Your task to perform on an android device: Open Android settings Image 0: 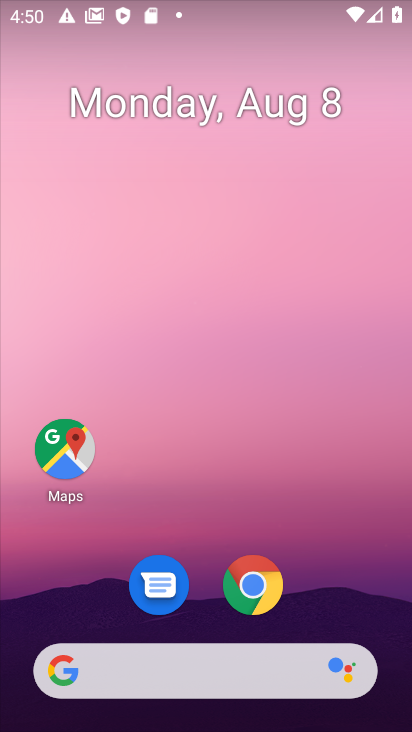
Step 0: drag from (314, 603) to (294, 13)
Your task to perform on an android device: Open Android settings Image 1: 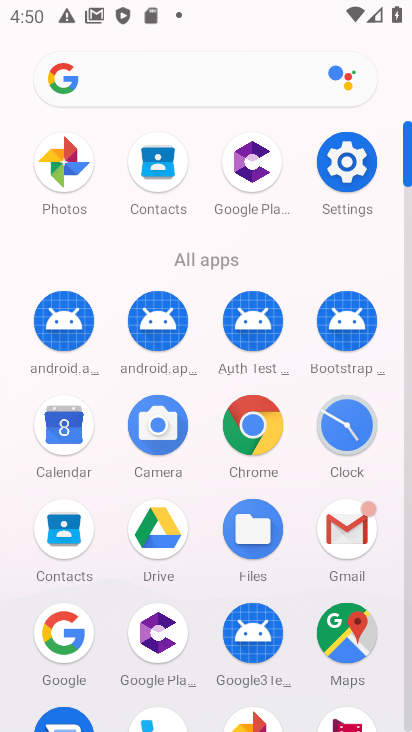
Step 1: click (347, 163)
Your task to perform on an android device: Open Android settings Image 2: 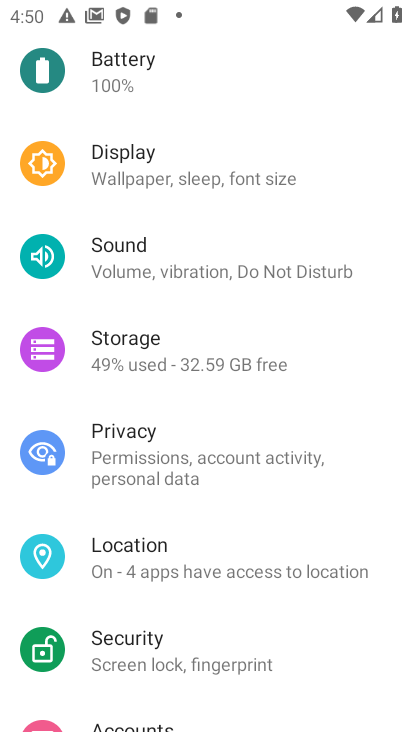
Step 2: drag from (244, 696) to (247, 86)
Your task to perform on an android device: Open Android settings Image 3: 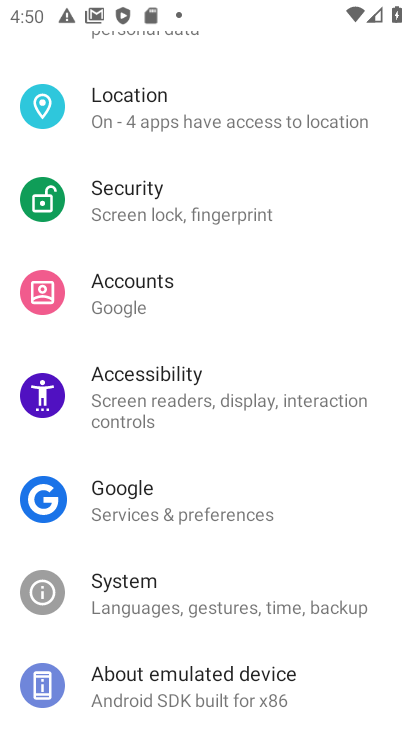
Step 3: click (243, 688)
Your task to perform on an android device: Open Android settings Image 4: 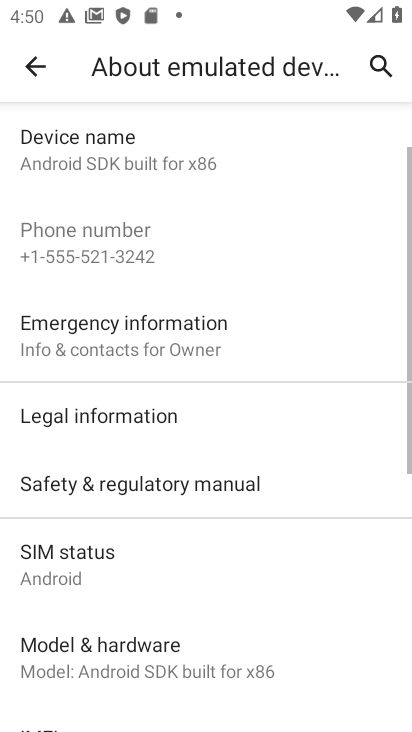
Step 4: task complete